Your task to perform on an android device: Search for vegetarian restaurants on Maps Image 0: 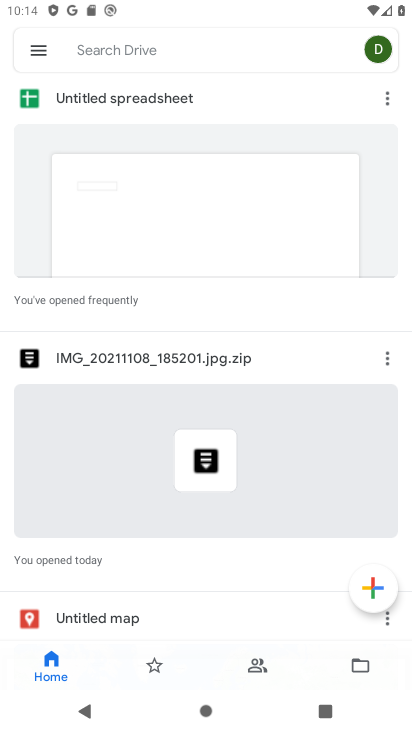
Step 0: press home button
Your task to perform on an android device: Search for vegetarian restaurants on Maps Image 1: 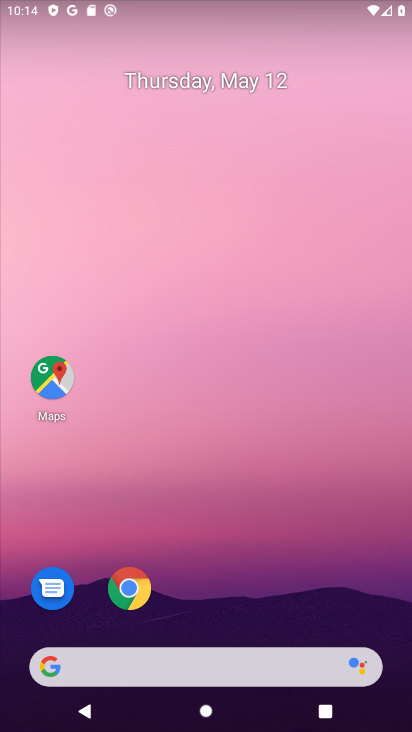
Step 1: click (40, 388)
Your task to perform on an android device: Search for vegetarian restaurants on Maps Image 2: 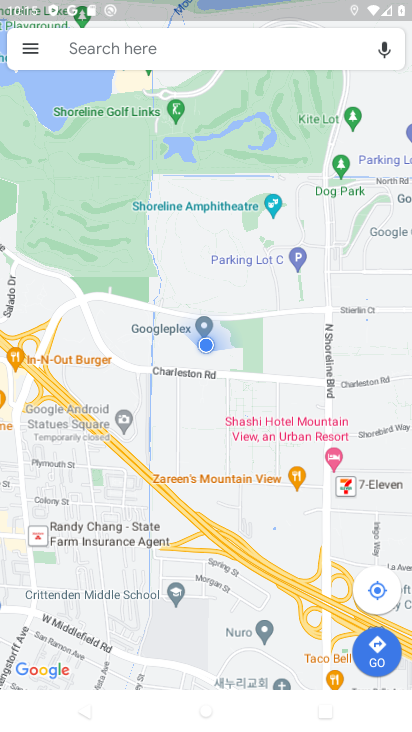
Step 2: click (130, 48)
Your task to perform on an android device: Search for vegetarian restaurants on Maps Image 3: 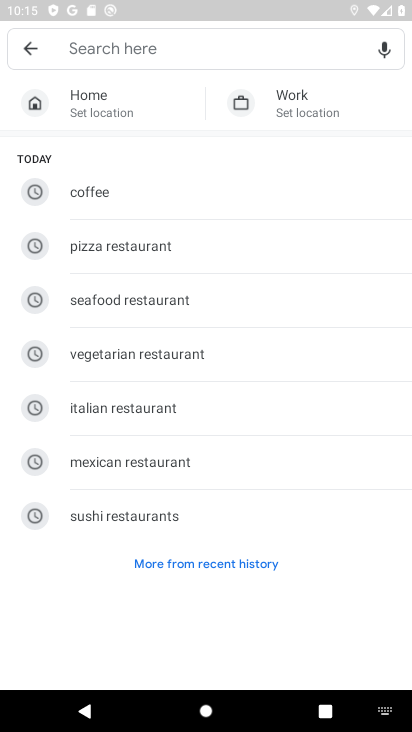
Step 3: click (217, 49)
Your task to perform on an android device: Search for vegetarian restaurants on Maps Image 4: 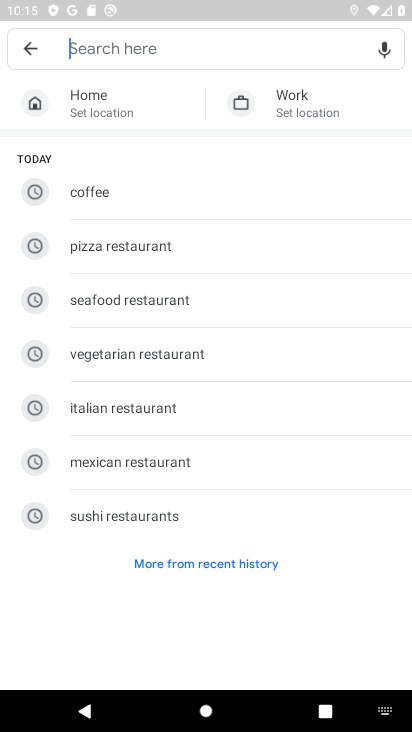
Step 4: click (84, 347)
Your task to perform on an android device: Search for vegetarian restaurants on Maps Image 5: 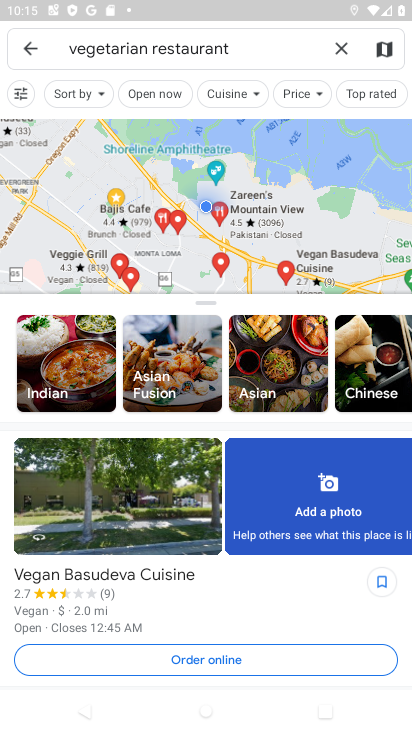
Step 5: task complete